Your task to perform on an android device: turn on the 12-hour format for clock Image 0: 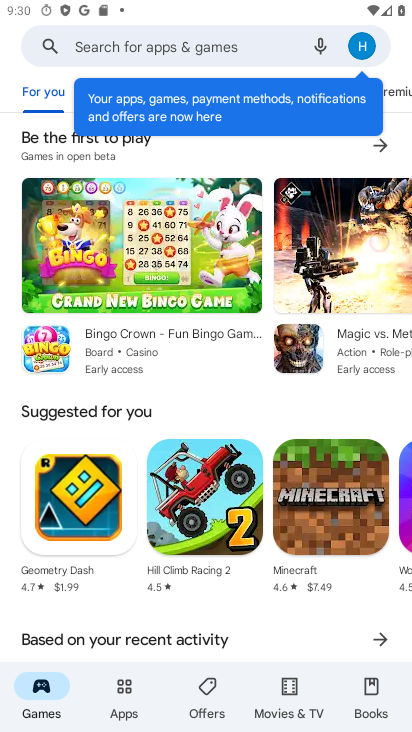
Step 0: press home button
Your task to perform on an android device: turn on the 12-hour format for clock Image 1: 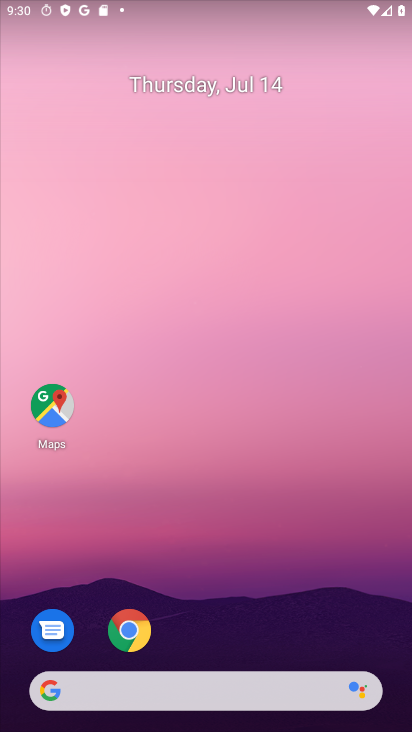
Step 1: drag from (11, 716) to (274, 26)
Your task to perform on an android device: turn on the 12-hour format for clock Image 2: 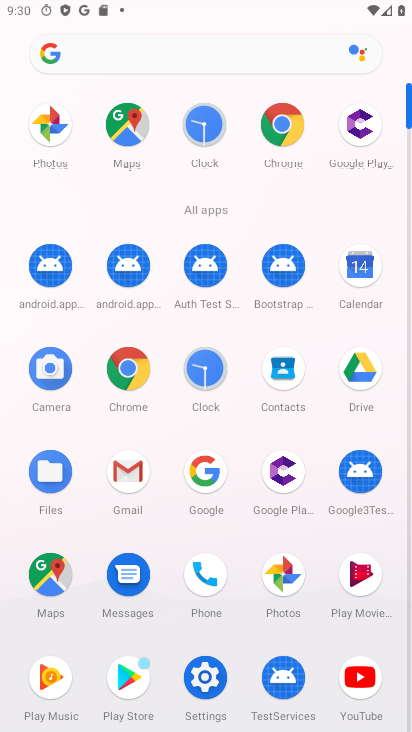
Step 2: click (203, 666)
Your task to perform on an android device: turn on the 12-hour format for clock Image 3: 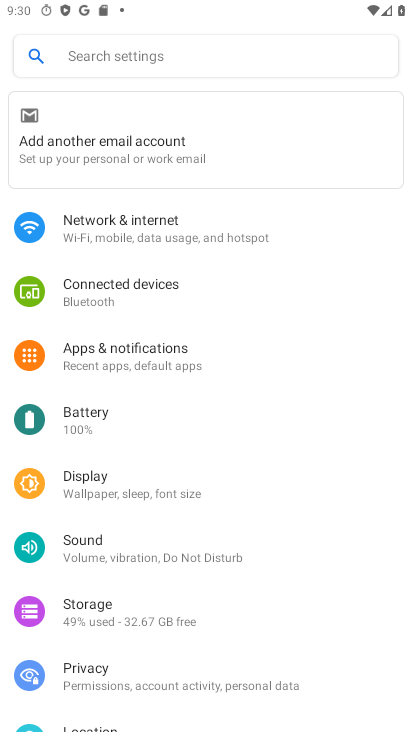
Step 3: task complete